Your task to perform on an android device: turn off smart reply in the gmail app Image 0: 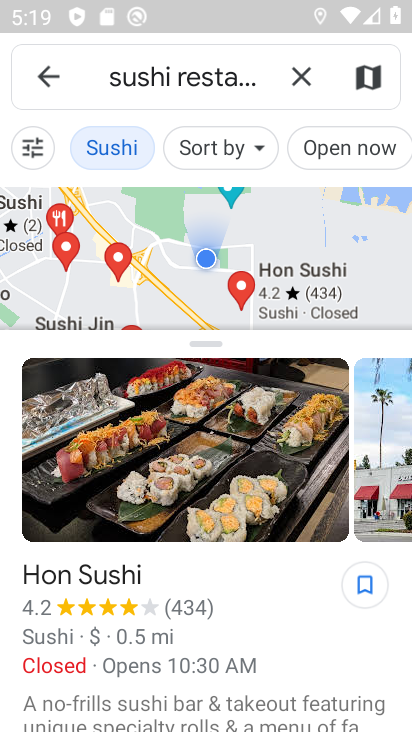
Step 0: press home button
Your task to perform on an android device: turn off smart reply in the gmail app Image 1: 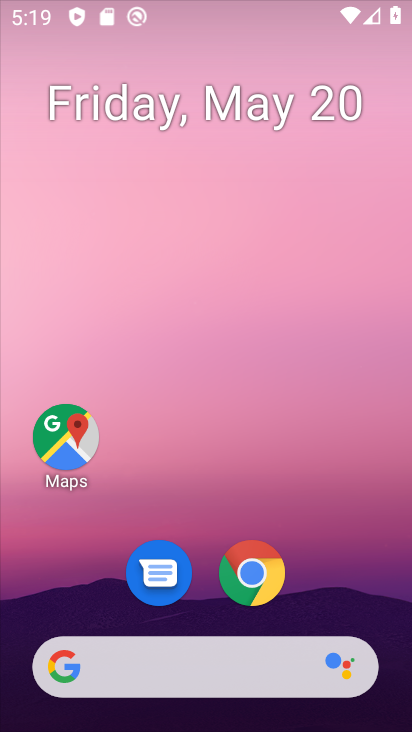
Step 1: drag from (334, 517) to (262, 113)
Your task to perform on an android device: turn off smart reply in the gmail app Image 2: 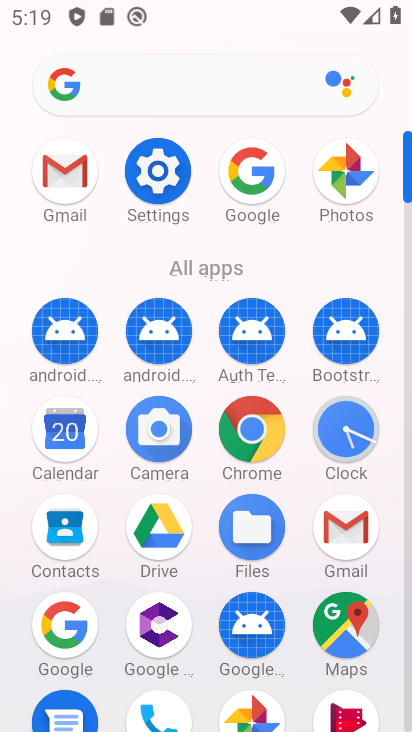
Step 2: click (337, 517)
Your task to perform on an android device: turn off smart reply in the gmail app Image 3: 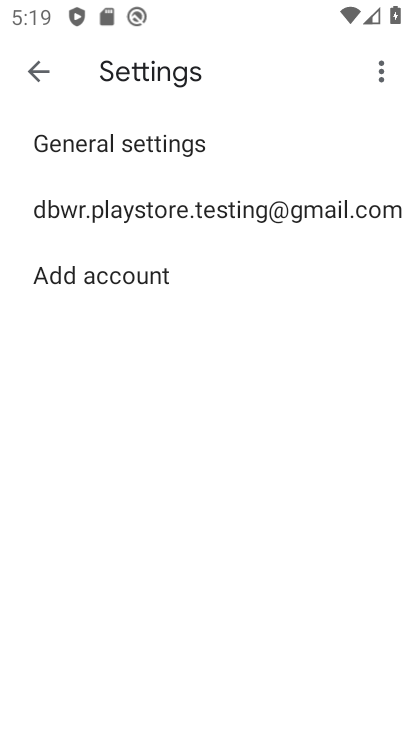
Step 3: click (111, 204)
Your task to perform on an android device: turn off smart reply in the gmail app Image 4: 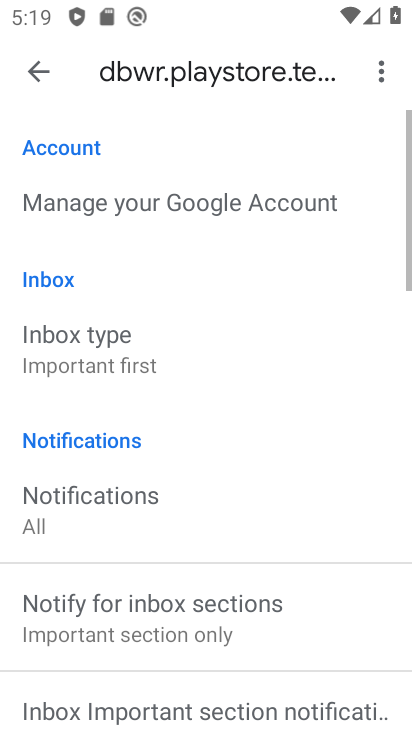
Step 4: drag from (136, 564) to (191, 33)
Your task to perform on an android device: turn off smart reply in the gmail app Image 5: 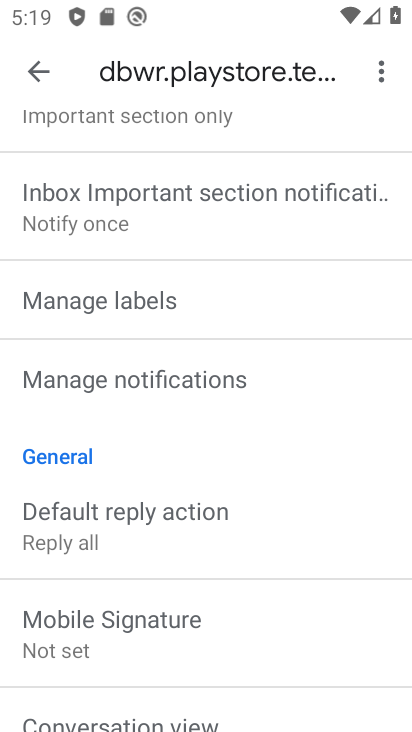
Step 5: drag from (136, 536) to (207, 109)
Your task to perform on an android device: turn off smart reply in the gmail app Image 6: 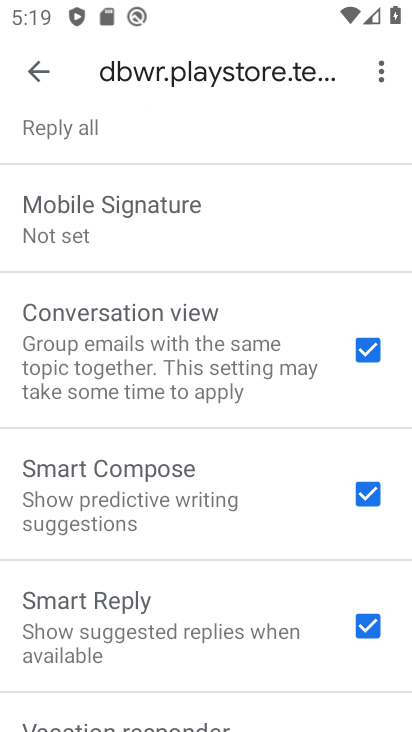
Step 6: click (366, 628)
Your task to perform on an android device: turn off smart reply in the gmail app Image 7: 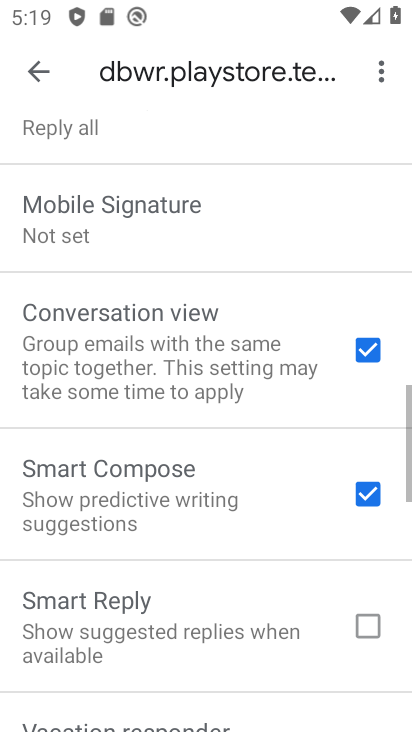
Step 7: task complete